Your task to perform on an android device: Open Google Chrome Image 0: 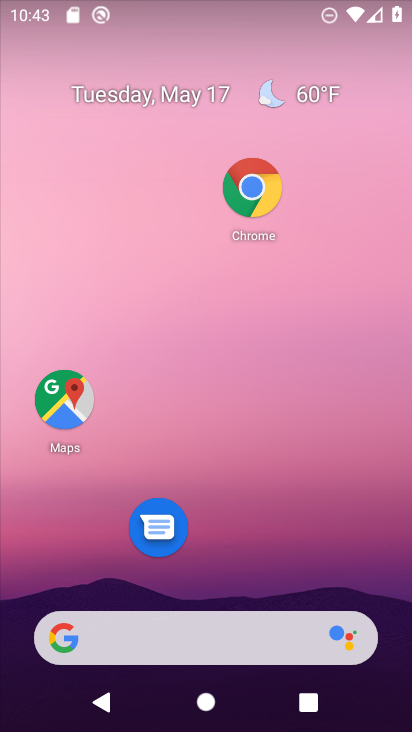
Step 0: click (249, 207)
Your task to perform on an android device: Open Google Chrome Image 1: 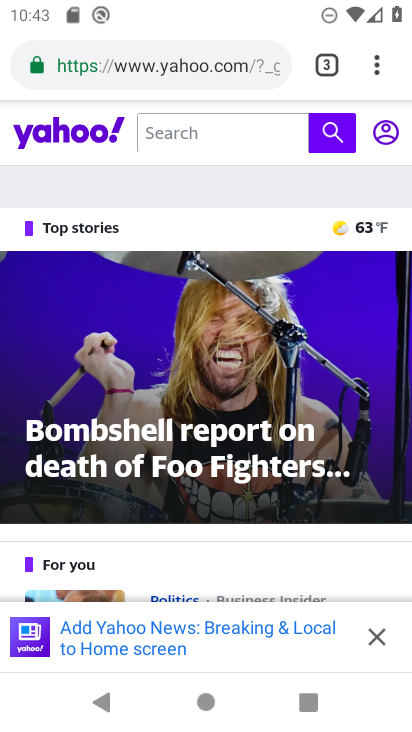
Step 1: click (212, 75)
Your task to perform on an android device: Open Google Chrome Image 2: 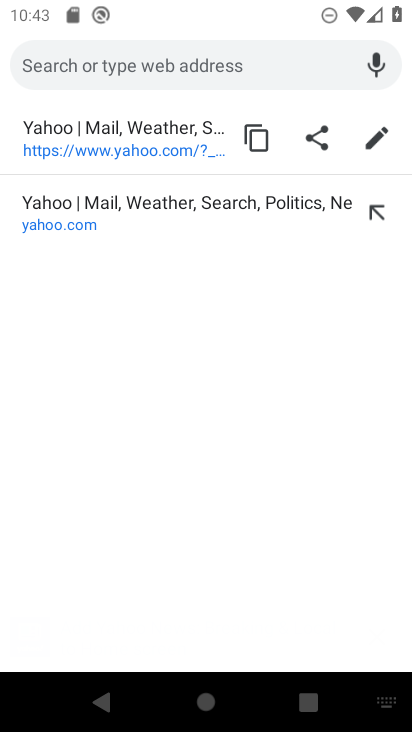
Step 2: type "google.com"
Your task to perform on an android device: Open Google Chrome Image 3: 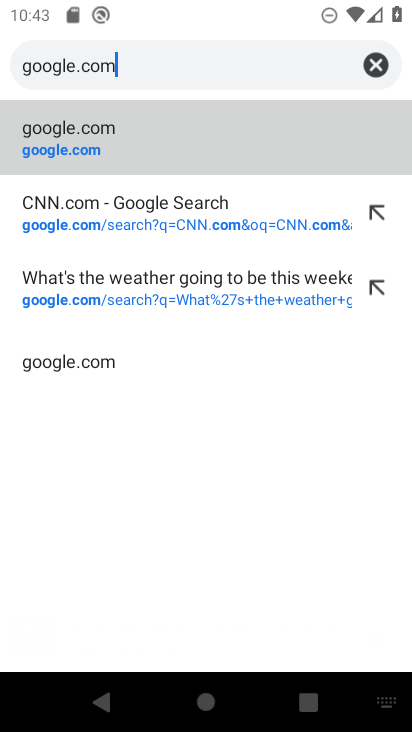
Step 3: click (90, 160)
Your task to perform on an android device: Open Google Chrome Image 4: 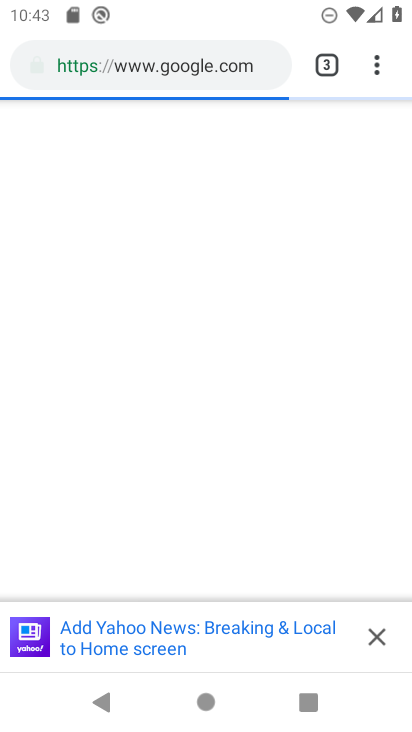
Step 4: task complete